Your task to perform on an android device: What's the weather going to be this weekend? Image 0: 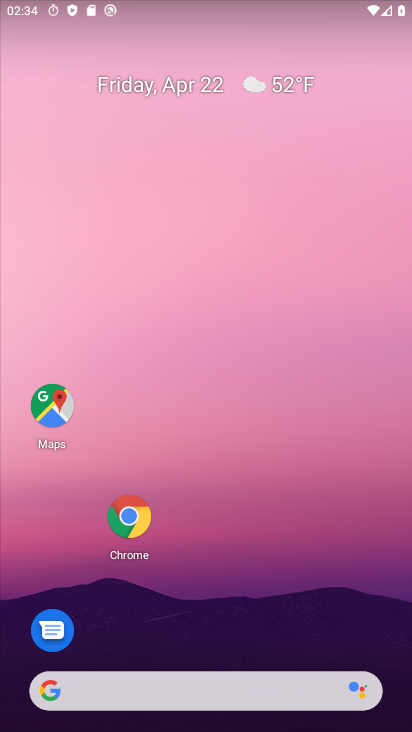
Step 0: click (278, 77)
Your task to perform on an android device: What's the weather going to be this weekend? Image 1: 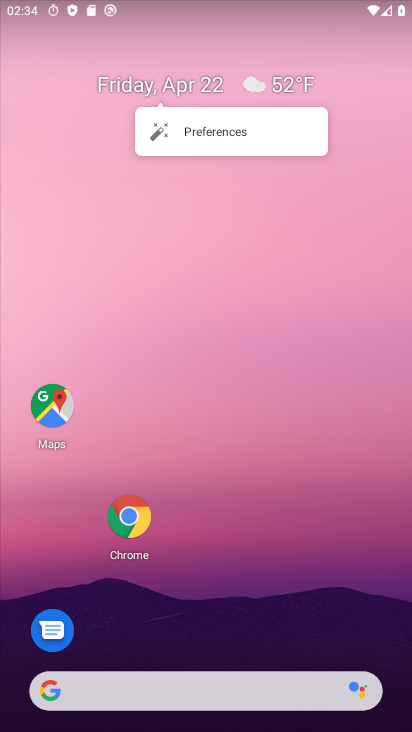
Step 1: click (290, 83)
Your task to perform on an android device: What's the weather going to be this weekend? Image 2: 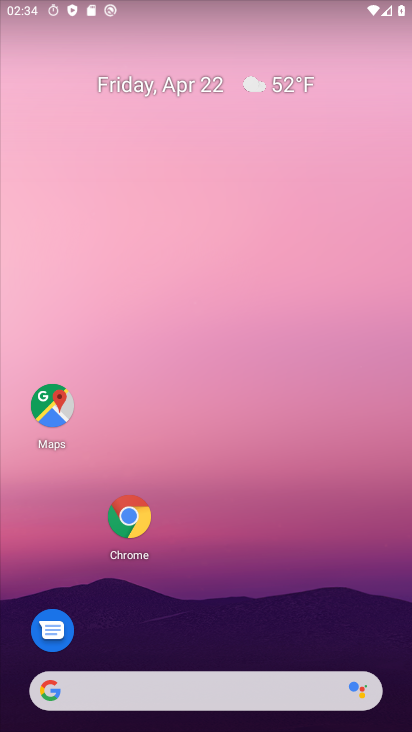
Step 2: click (290, 83)
Your task to perform on an android device: What's the weather going to be this weekend? Image 3: 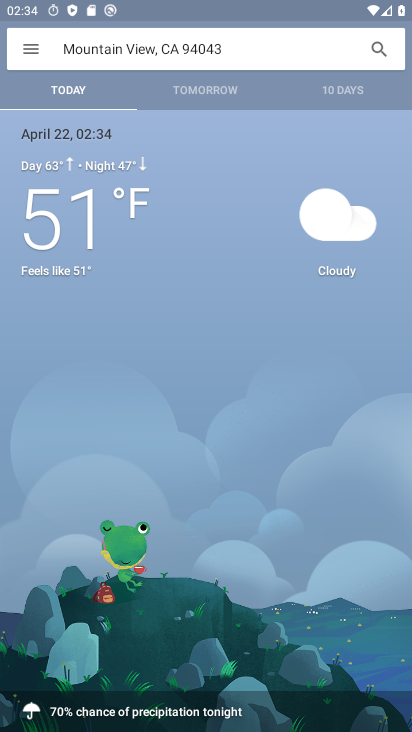
Step 3: click (325, 94)
Your task to perform on an android device: What's the weather going to be this weekend? Image 4: 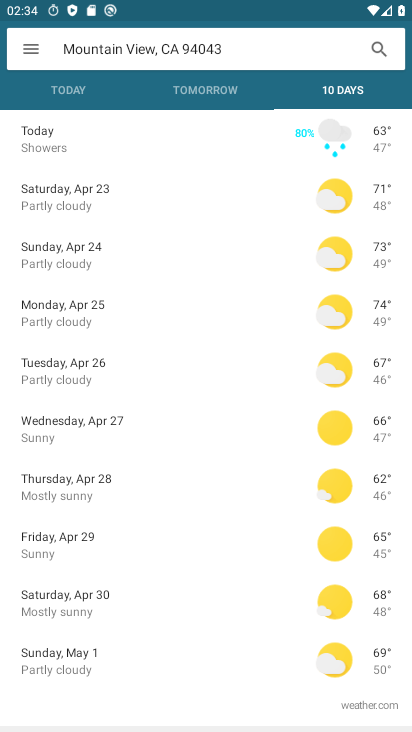
Step 4: task complete